Your task to perform on an android device: Open Google Chrome and open the bookmarks view Image 0: 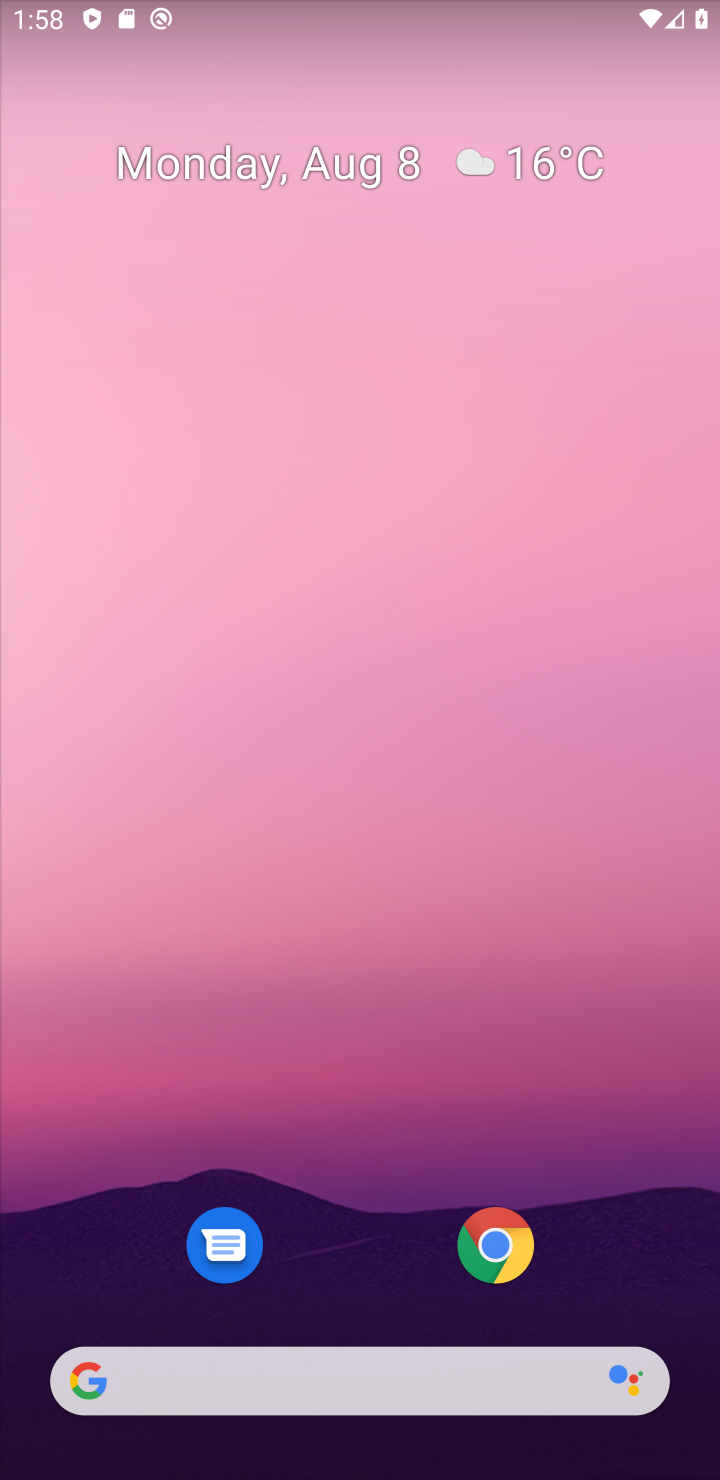
Step 0: click (497, 1254)
Your task to perform on an android device: Open Google Chrome and open the bookmarks view Image 1: 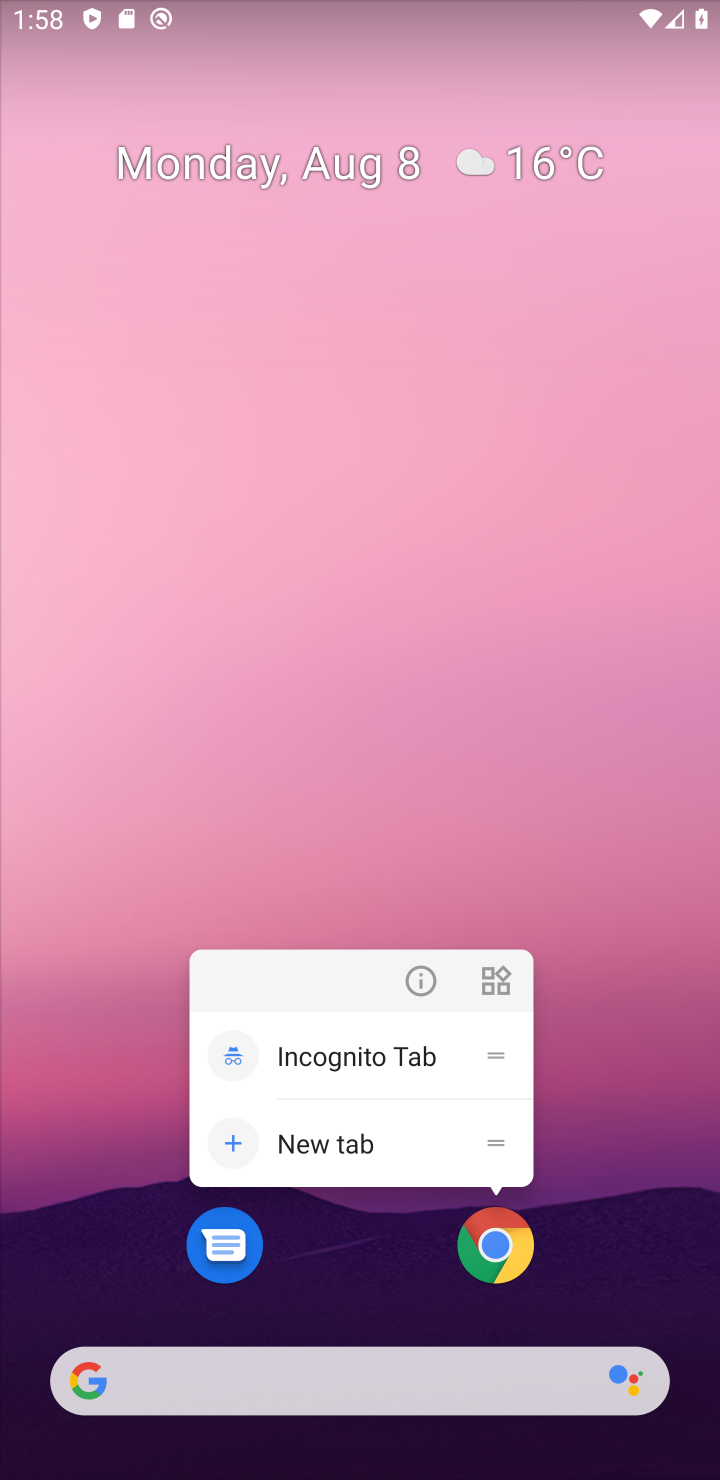
Step 1: click (497, 1254)
Your task to perform on an android device: Open Google Chrome and open the bookmarks view Image 2: 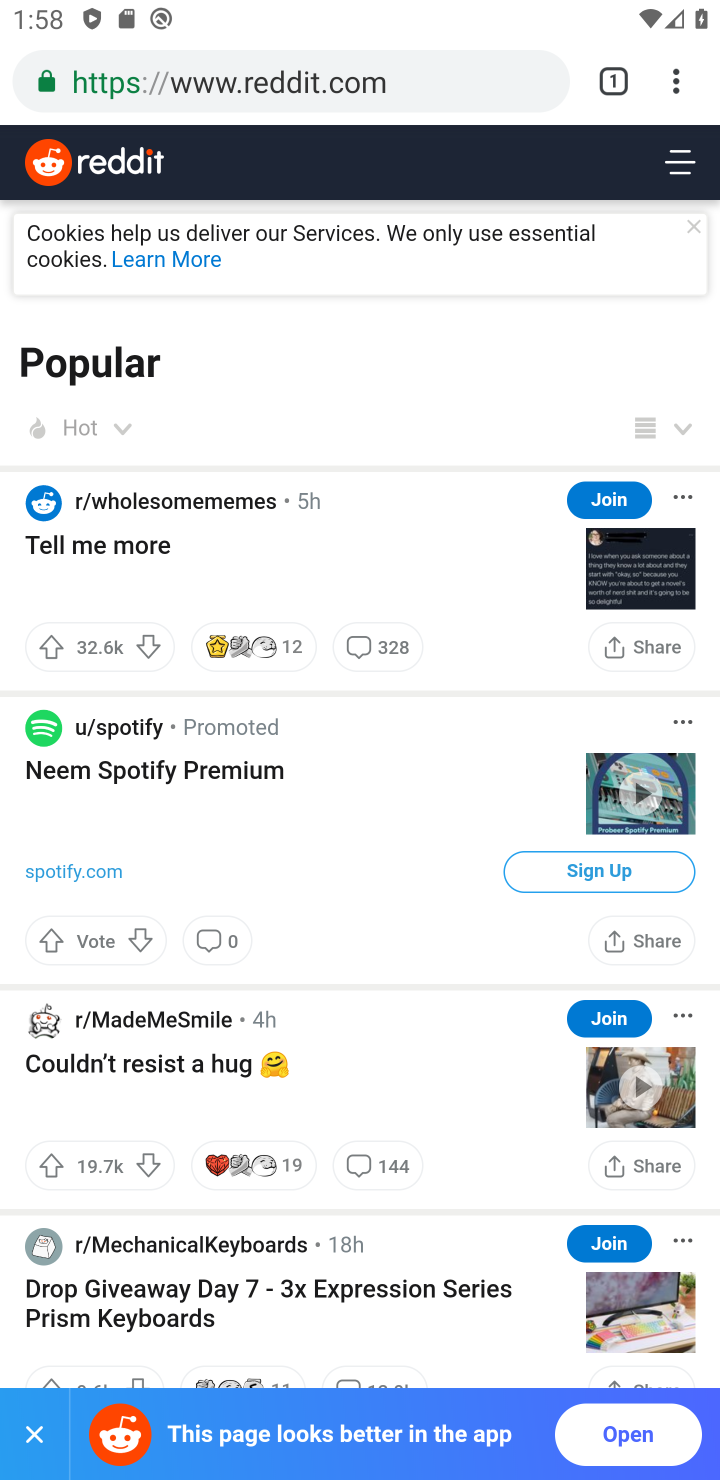
Step 2: click (679, 84)
Your task to perform on an android device: Open Google Chrome and open the bookmarks view Image 3: 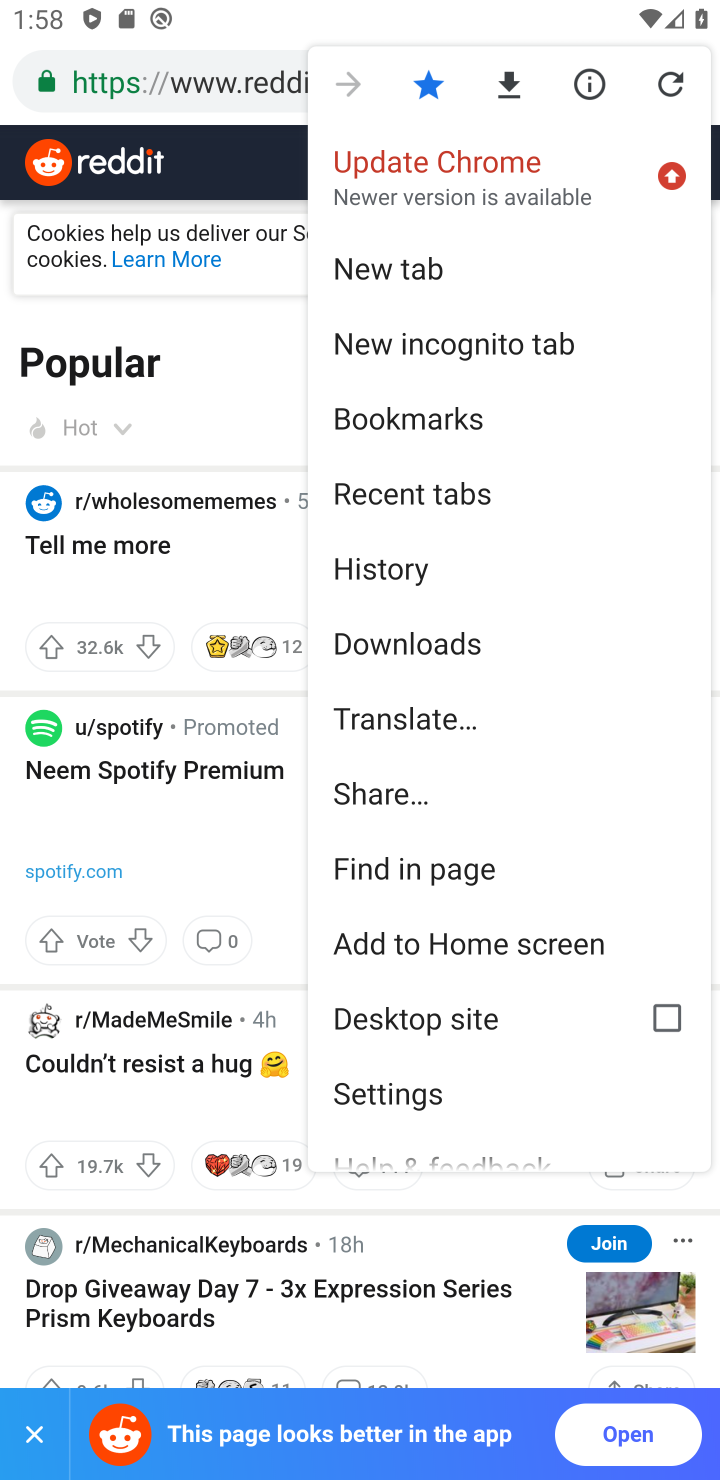
Step 3: click (424, 418)
Your task to perform on an android device: Open Google Chrome and open the bookmarks view Image 4: 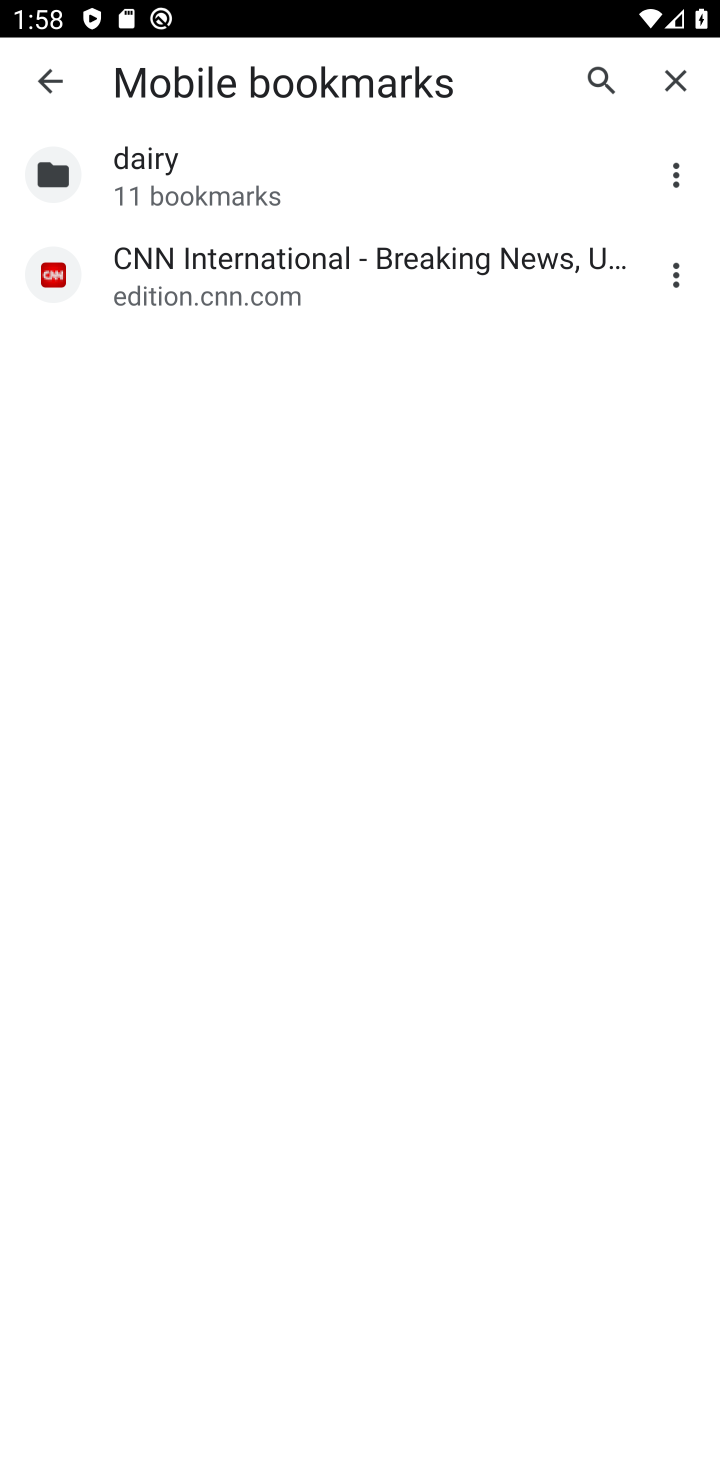
Step 4: click (679, 169)
Your task to perform on an android device: Open Google Chrome and open the bookmarks view Image 5: 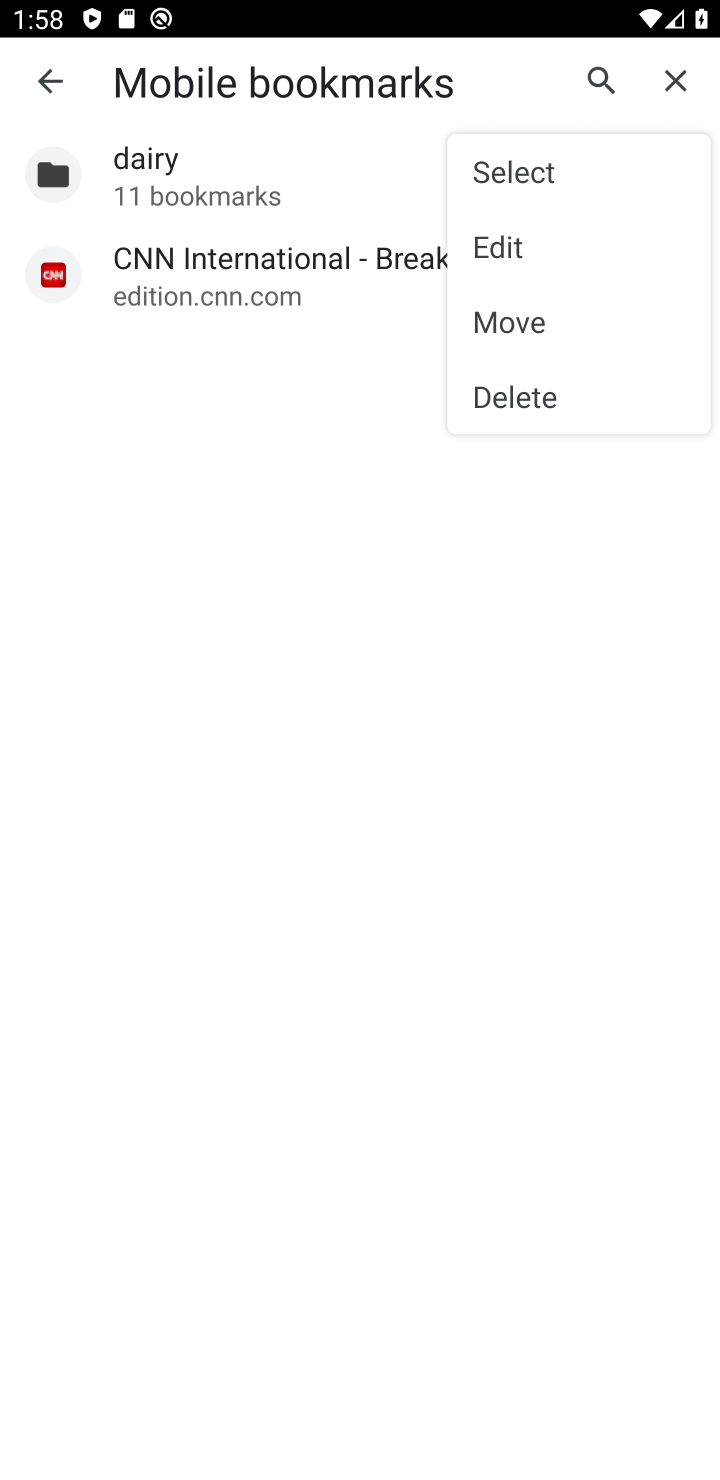
Step 5: click (502, 245)
Your task to perform on an android device: Open Google Chrome and open the bookmarks view Image 6: 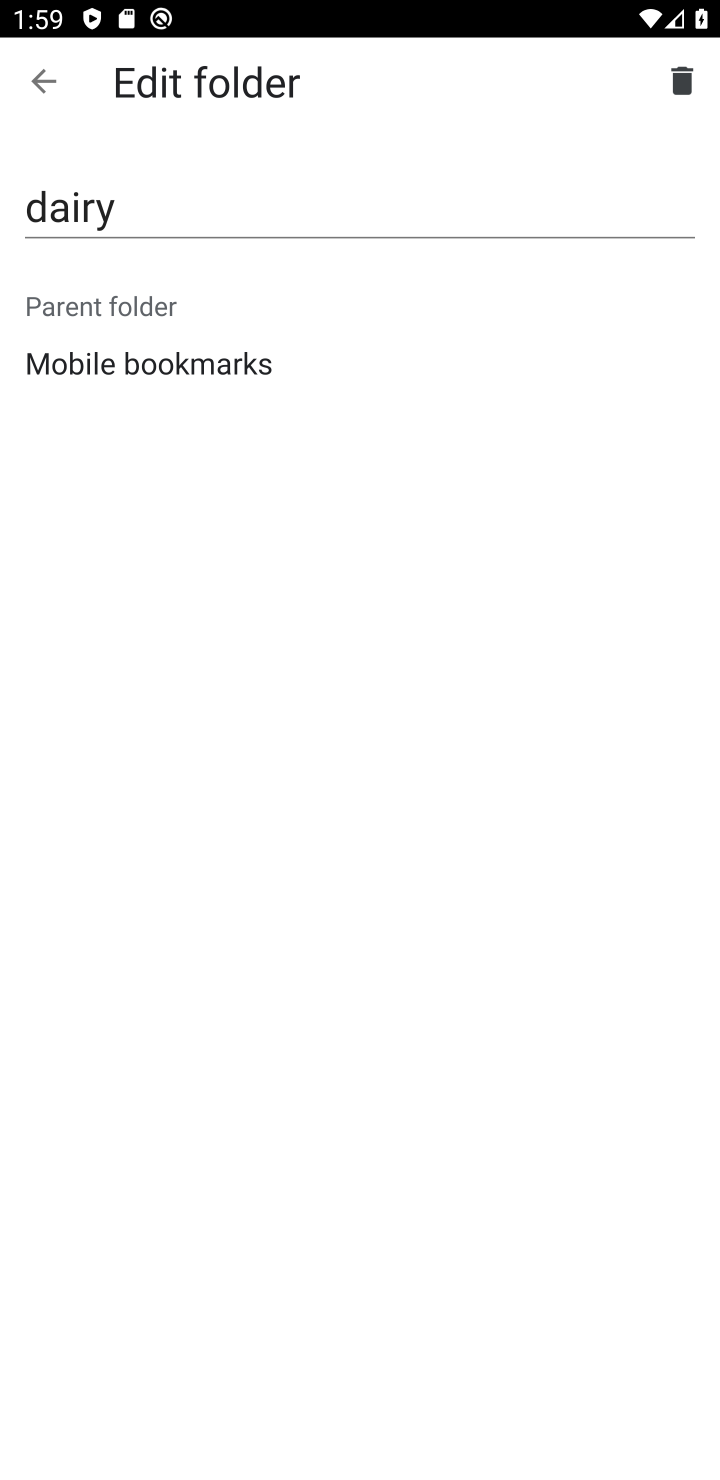
Step 6: task complete